Your task to perform on an android device: turn off airplane mode Image 0: 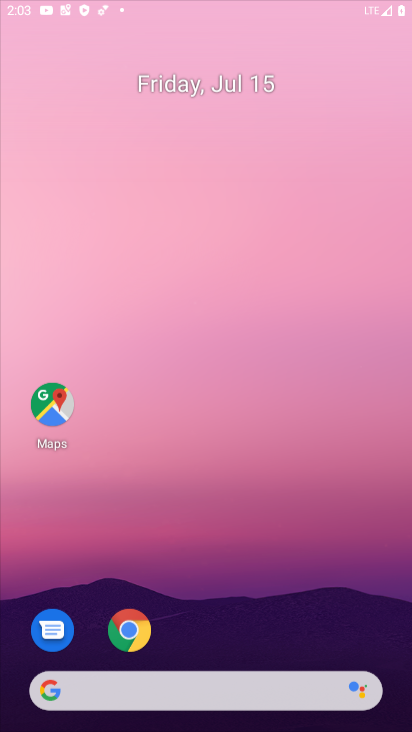
Step 0: press home button
Your task to perform on an android device: turn off airplane mode Image 1: 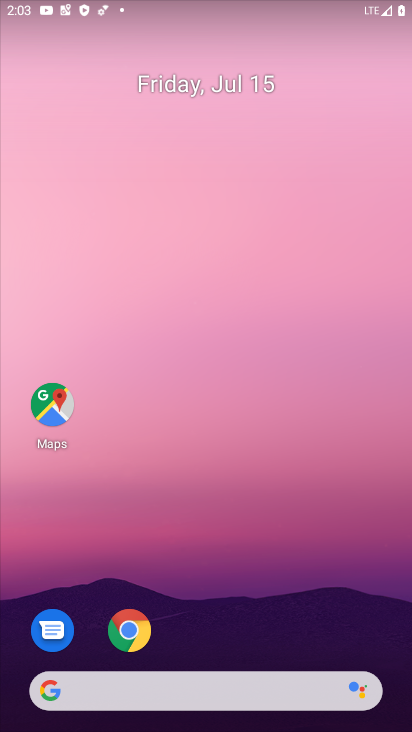
Step 1: task complete